Your task to perform on an android device: open a new tab in the chrome app Image 0: 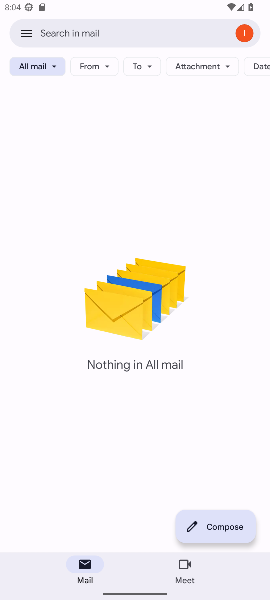
Step 0: press home button
Your task to perform on an android device: open a new tab in the chrome app Image 1: 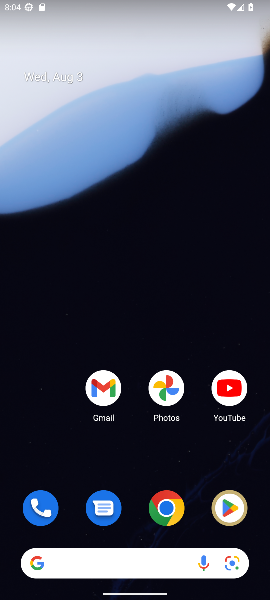
Step 1: click (175, 521)
Your task to perform on an android device: open a new tab in the chrome app Image 2: 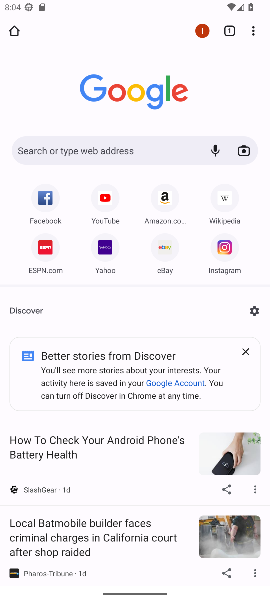
Step 2: click (233, 33)
Your task to perform on an android device: open a new tab in the chrome app Image 3: 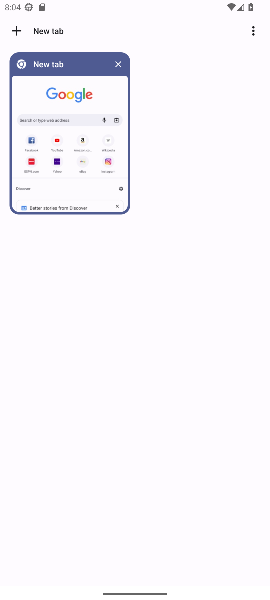
Step 3: click (12, 30)
Your task to perform on an android device: open a new tab in the chrome app Image 4: 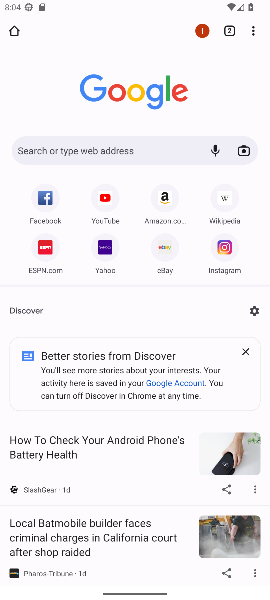
Step 4: task complete